Your task to perform on an android device: Is it going to rain this weekend? Image 0: 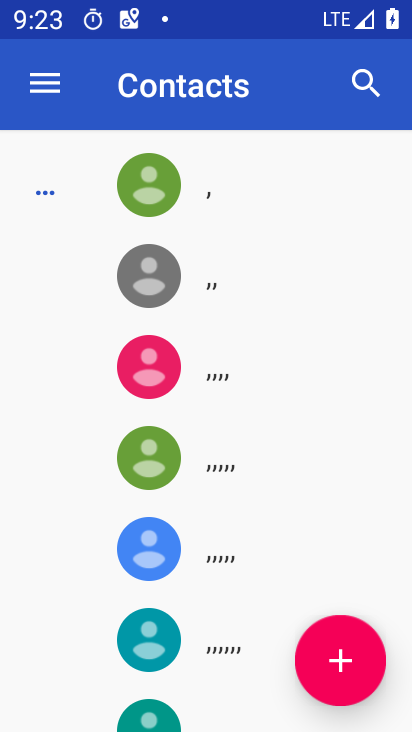
Step 0: press home button
Your task to perform on an android device: Is it going to rain this weekend? Image 1: 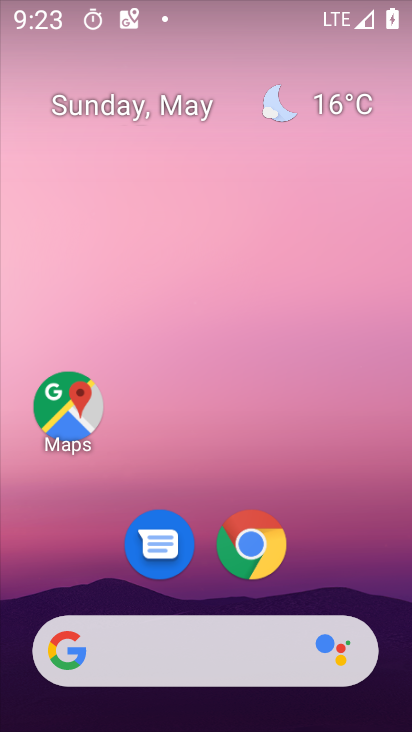
Step 1: drag from (310, 576) to (183, 0)
Your task to perform on an android device: Is it going to rain this weekend? Image 2: 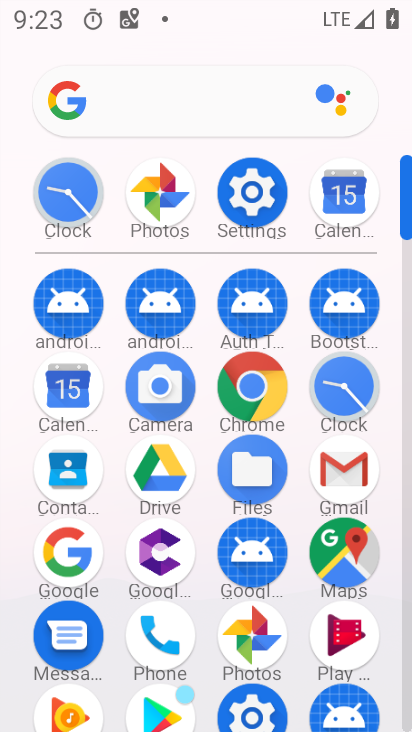
Step 2: click (86, 565)
Your task to perform on an android device: Is it going to rain this weekend? Image 3: 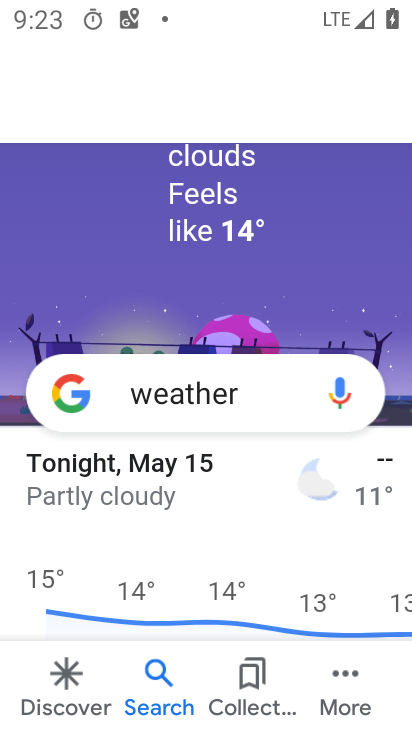
Step 3: press back button
Your task to perform on an android device: Is it going to rain this weekend? Image 4: 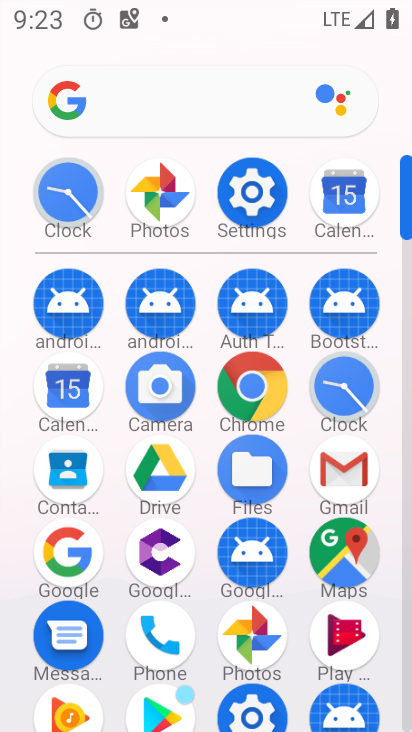
Step 4: click (59, 572)
Your task to perform on an android device: Is it going to rain this weekend? Image 5: 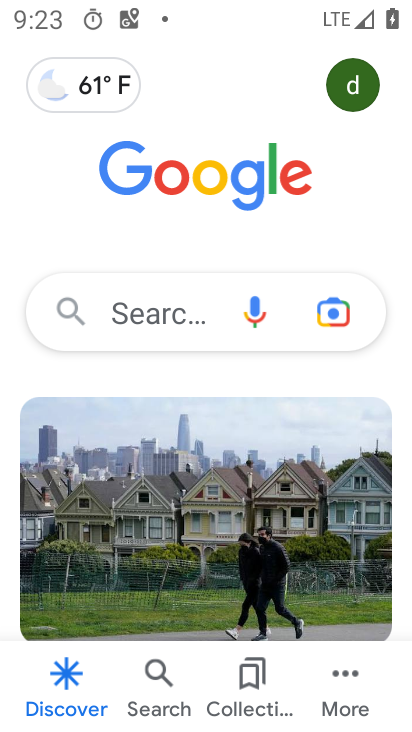
Step 5: click (179, 310)
Your task to perform on an android device: Is it going to rain this weekend? Image 6: 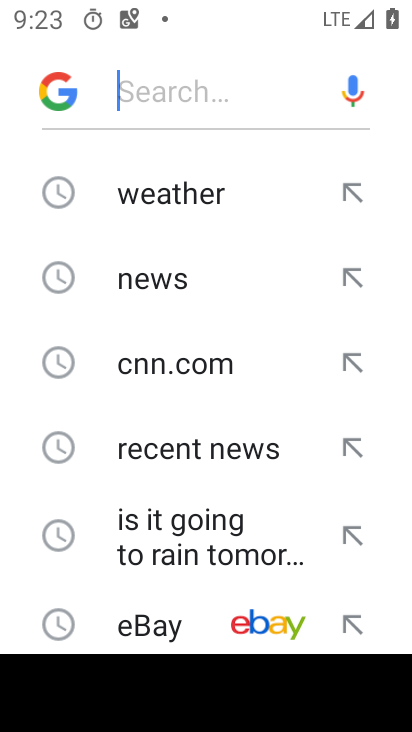
Step 6: click (164, 213)
Your task to perform on an android device: Is it going to rain this weekend? Image 7: 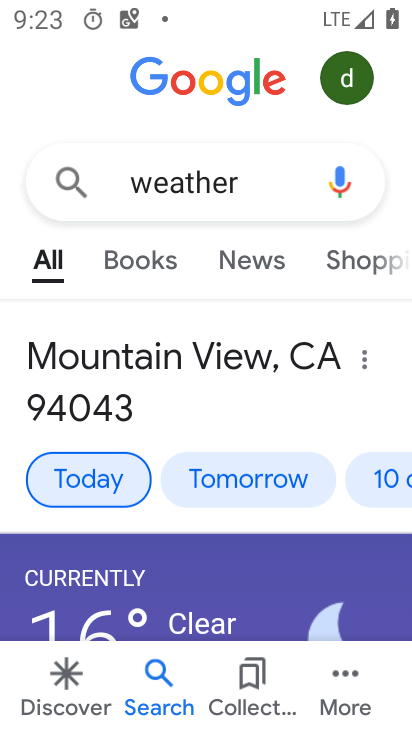
Step 7: click (386, 489)
Your task to perform on an android device: Is it going to rain this weekend? Image 8: 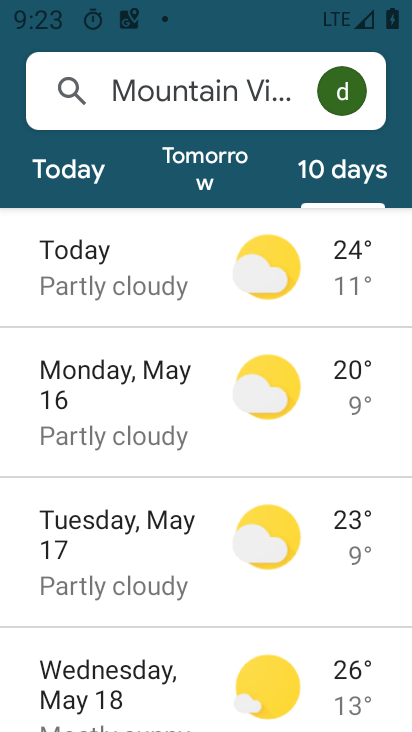
Step 8: task complete